Your task to perform on an android device: Open Google Chrome and click the shortcut for Amazon.com Image 0: 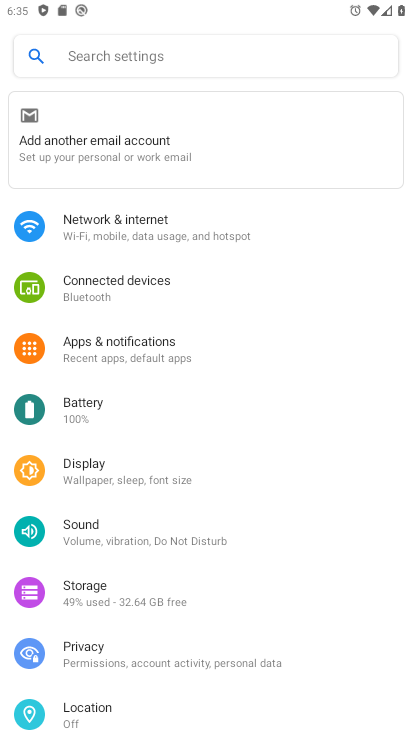
Step 0: press home button
Your task to perform on an android device: Open Google Chrome and click the shortcut for Amazon.com Image 1: 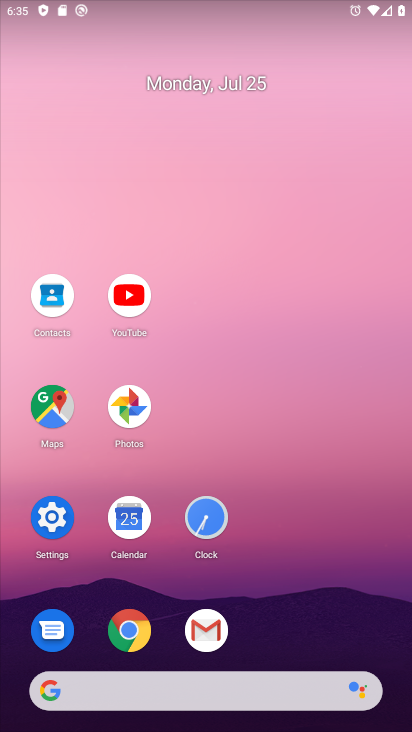
Step 1: click (131, 631)
Your task to perform on an android device: Open Google Chrome and click the shortcut for Amazon.com Image 2: 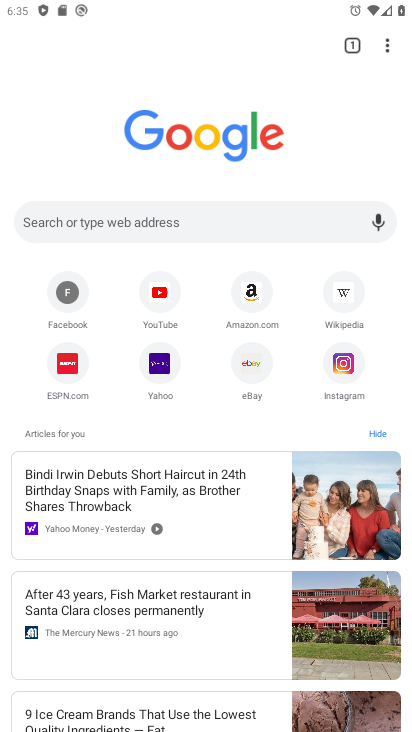
Step 2: click (250, 286)
Your task to perform on an android device: Open Google Chrome and click the shortcut for Amazon.com Image 3: 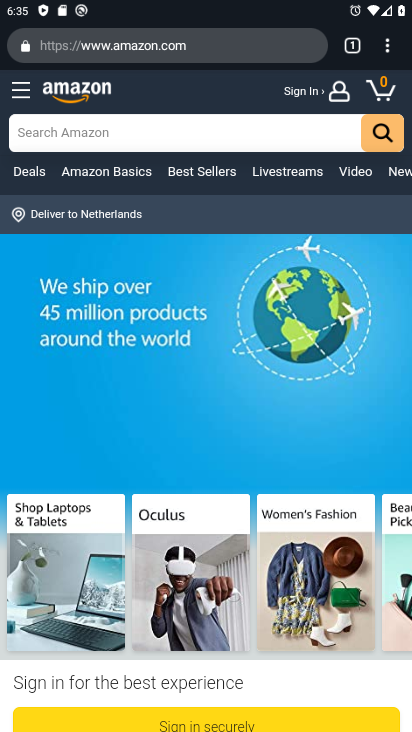
Step 3: task complete